Your task to perform on an android device: turn vacation reply on in the gmail app Image 0: 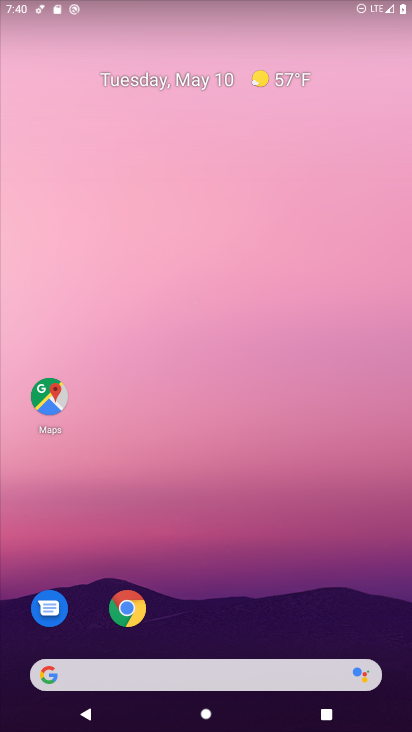
Step 0: drag from (333, 633) to (259, 101)
Your task to perform on an android device: turn vacation reply on in the gmail app Image 1: 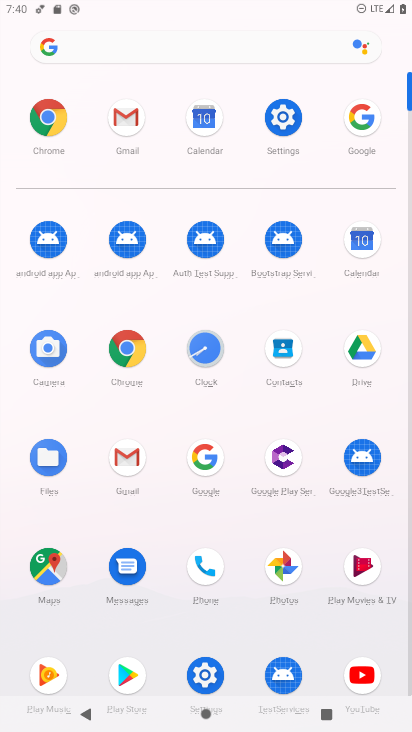
Step 1: click (126, 462)
Your task to perform on an android device: turn vacation reply on in the gmail app Image 2: 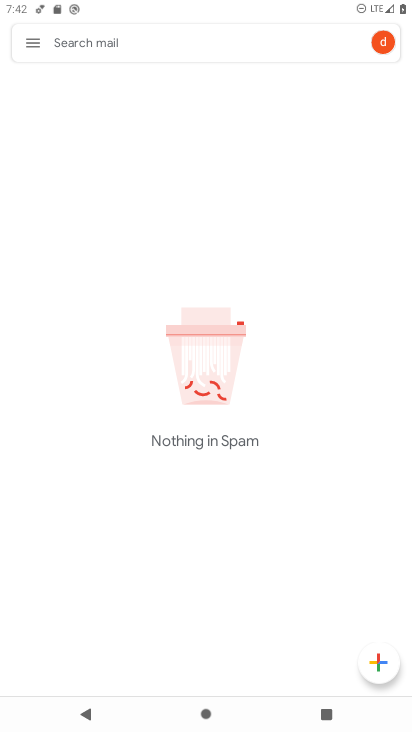
Step 2: click (32, 43)
Your task to perform on an android device: turn vacation reply on in the gmail app Image 3: 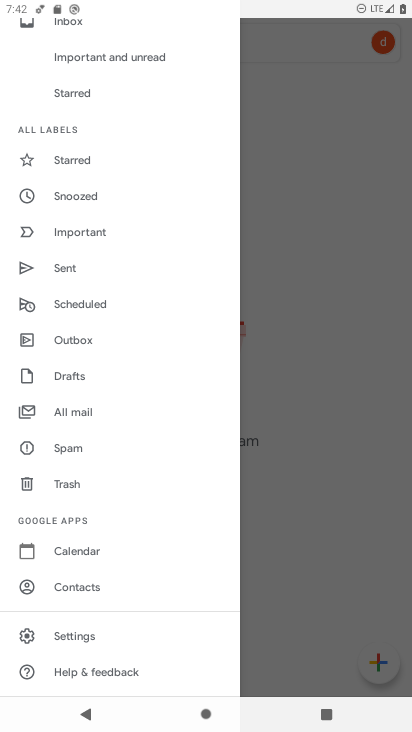
Step 3: click (120, 635)
Your task to perform on an android device: turn vacation reply on in the gmail app Image 4: 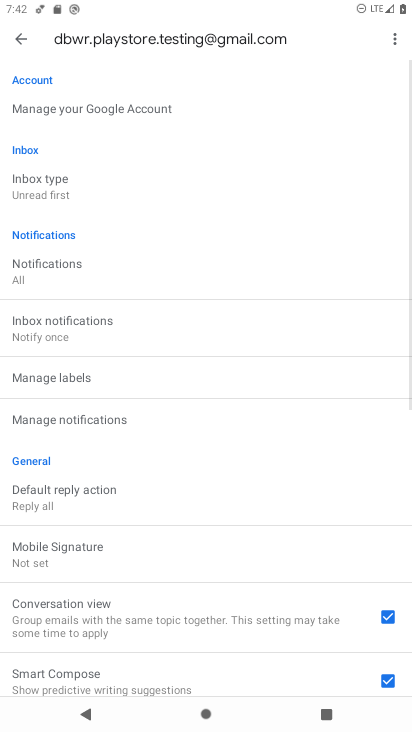
Step 4: drag from (103, 587) to (170, 180)
Your task to perform on an android device: turn vacation reply on in the gmail app Image 5: 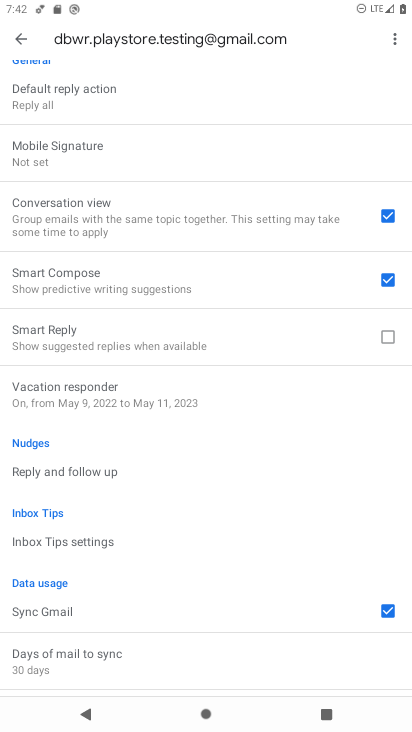
Step 5: click (135, 389)
Your task to perform on an android device: turn vacation reply on in the gmail app Image 6: 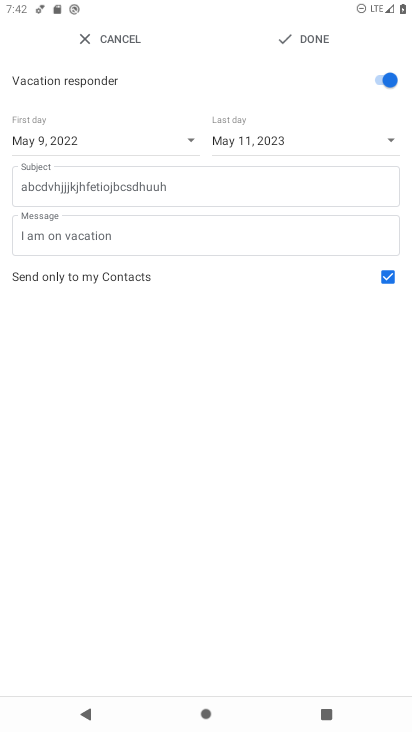
Step 6: task complete